Your task to perform on an android device: turn off sleep mode Image 0: 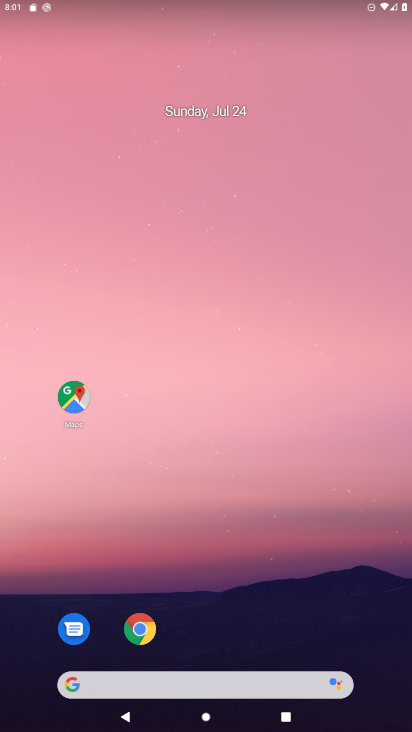
Step 0: drag from (328, 591) to (152, 6)
Your task to perform on an android device: turn off sleep mode Image 1: 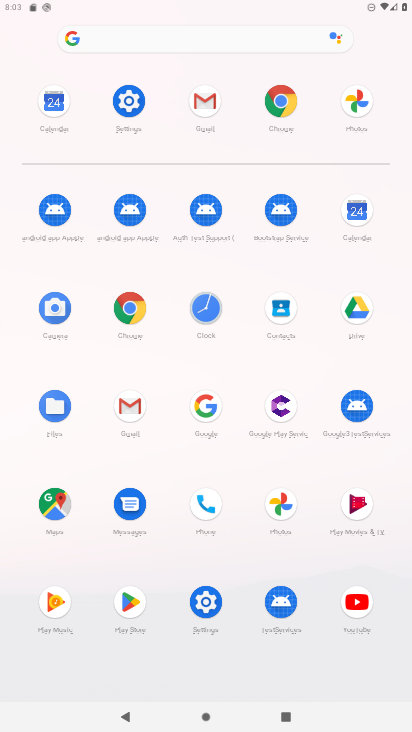
Step 1: click (182, 593)
Your task to perform on an android device: turn off sleep mode Image 2: 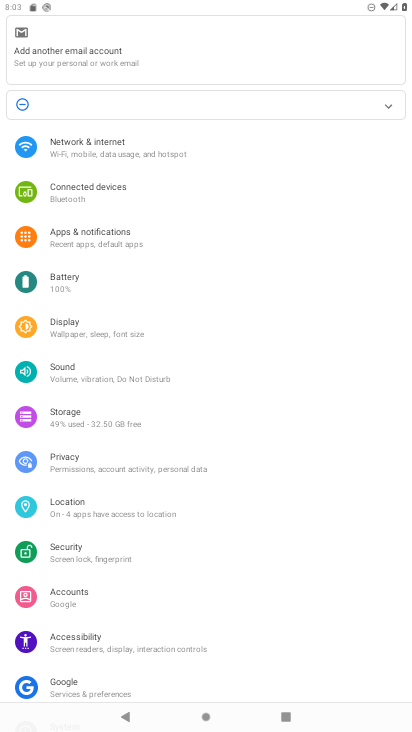
Step 2: task complete